Your task to perform on an android device: What's the weather? Image 0: 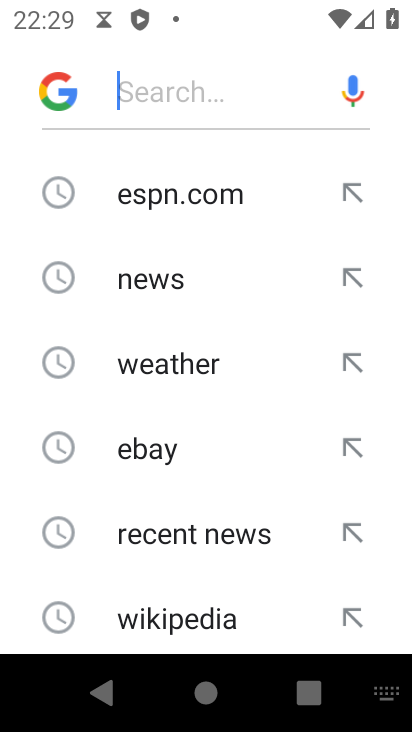
Step 0: click (143, 372)
Your task to perform on an android device: What's the weather? Image 1: 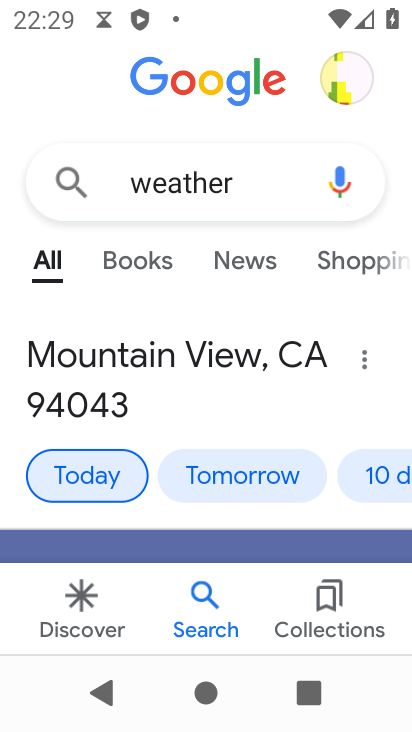
Step 1: task complete